Your task to perform on an android device: set default search engine in the chrome app Image 0: 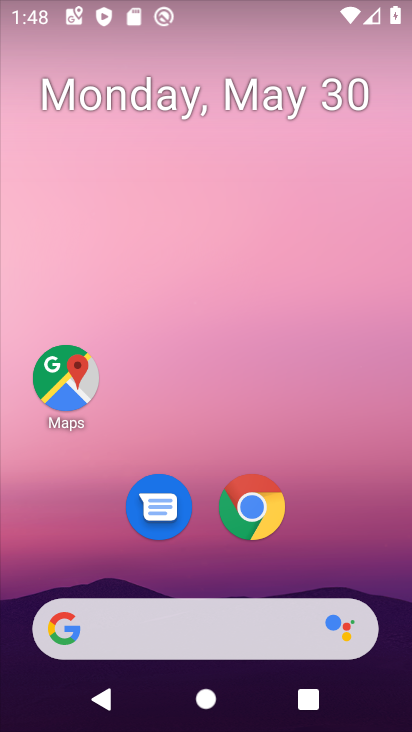
Step 0: click (255, 517)
Your task to perform on an android device: set default search engine in the chrome app Image 1: 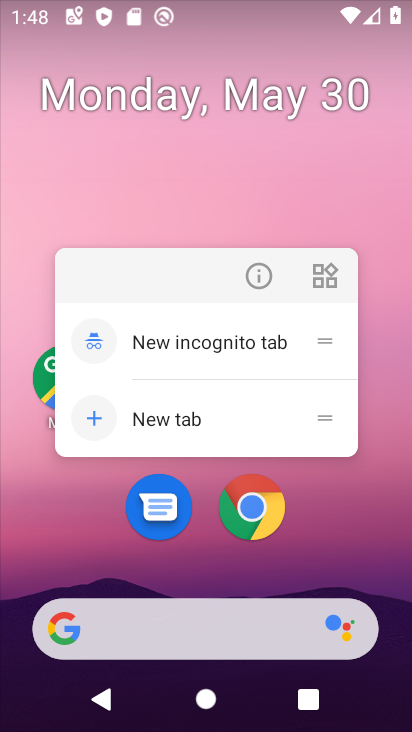
Step 1: click (253, 514)
Your task to perform on an android device: set default search engine in the chrome app Image 2: 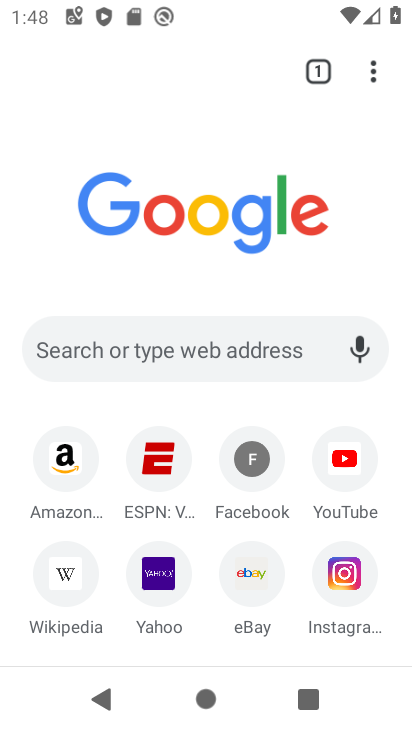
Step 2: click (368, 73)
Your task to perform on an android device: set default search engine in the chrome app Image 3: 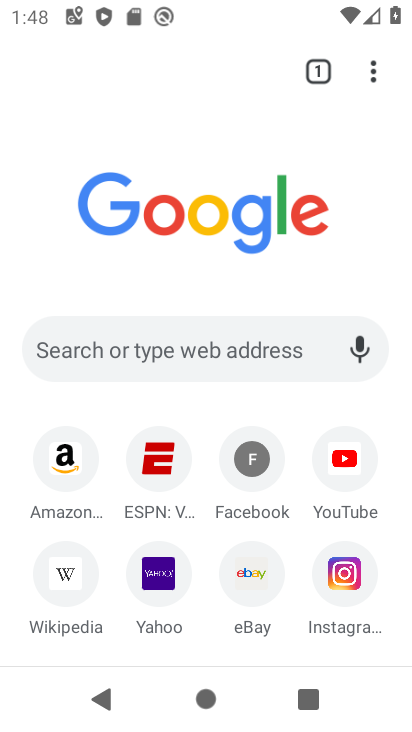
Step 3: click (368, 73)
Your task to perform on an android device: set default search engine in the chrome app Image 4: 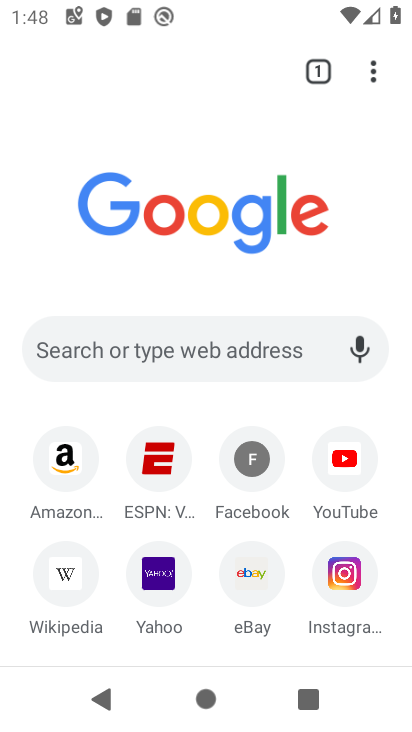
Step 4: click (374, 62)
Your task to perform on an android device: set default search engine in the chrome app Image 5: 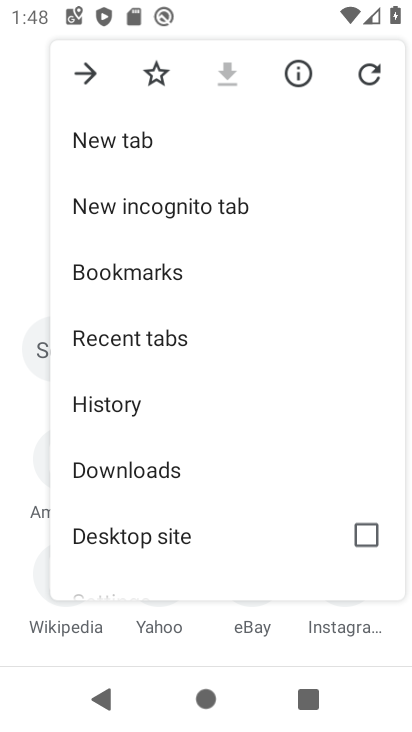
Step 5: drag from (171, 514) to (165, 296)
Your task to perform on an android device: set default search engine in the chrome app Image 6: 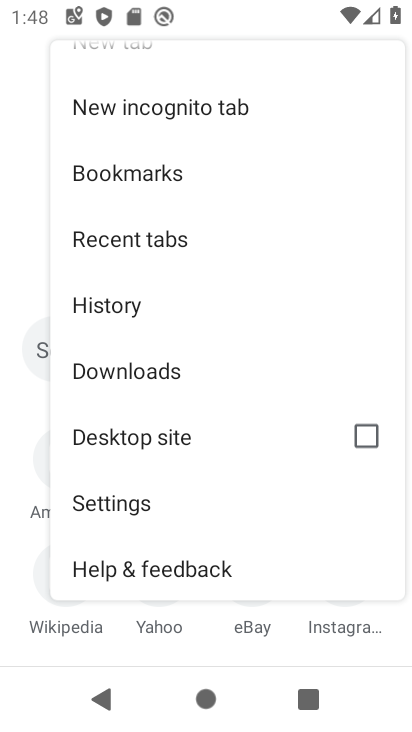
Step 6: click (100, 502)
Your task to perform on an android device: set default search engine in the chrome app Image 7: 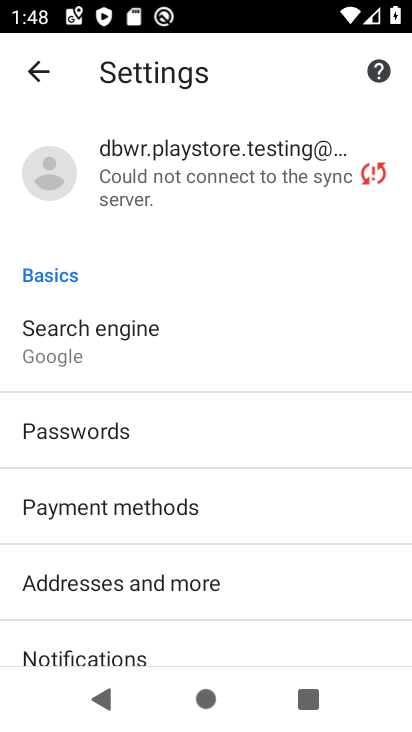
Step 7: click (85, 362)
Your task to perform on an android device: set default search engine in the chrome app Image 8: 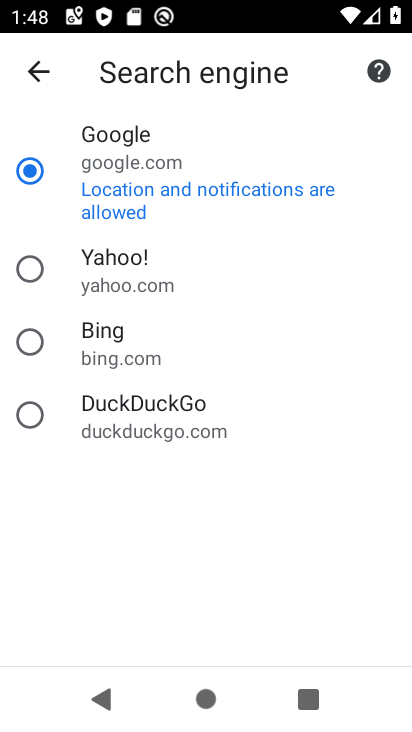
Step 8: click (22, 271)
Your task to perform on an android device: set default search engine in the chrome app Image 9: 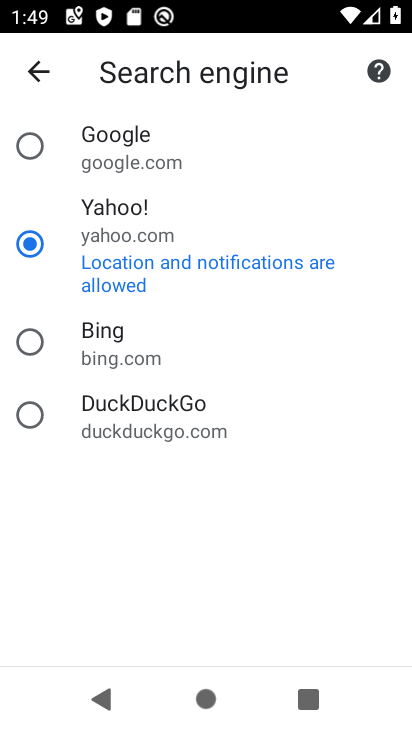
Step 9: task complete